Your task to perform on an android device: create a new album in the google photos Image 0: 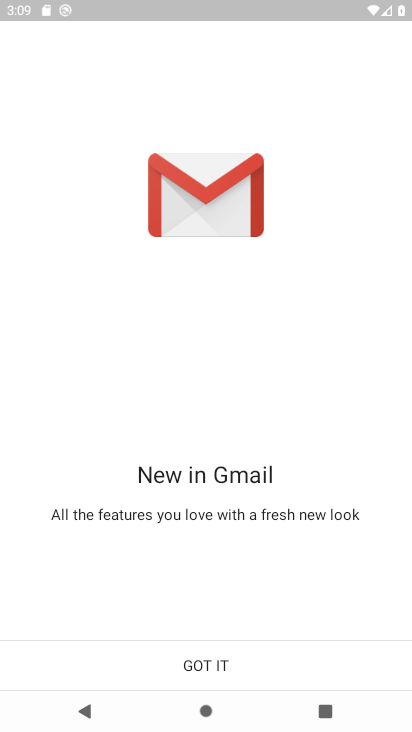
Step 0: press home button
Your task to perform on an android device: create a new album in the google photos Image 1: 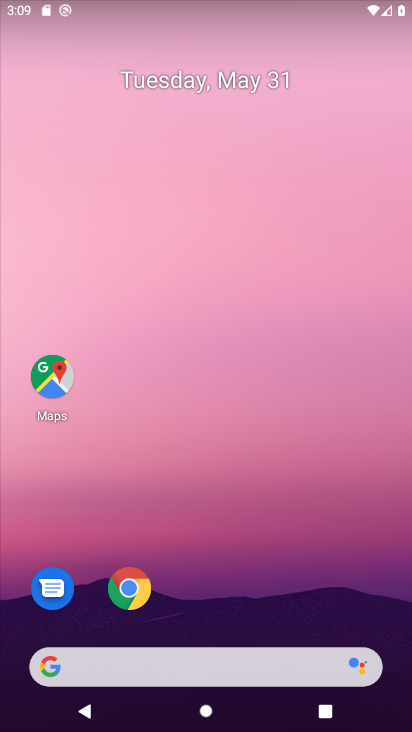
Step 1: drag from (247, 627) to (296, 172)
Your task to perform on an android device: create a new album in the google photos Image 2: 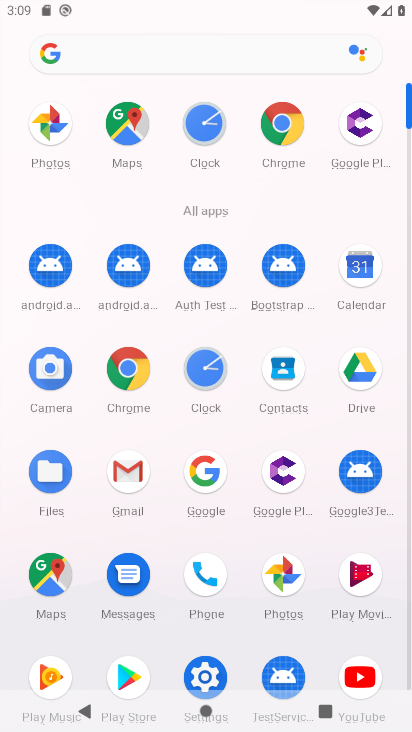
Step 2: click (294, 595)
Your task to perform on an android device: create a new album in the google photos Image 3: 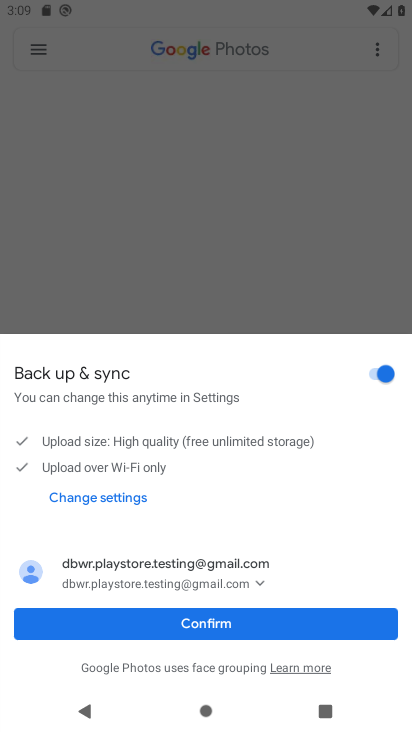
Step 3: click (297, 627)
Your task to perform on an android device: create a new album in the google photos Image 4: 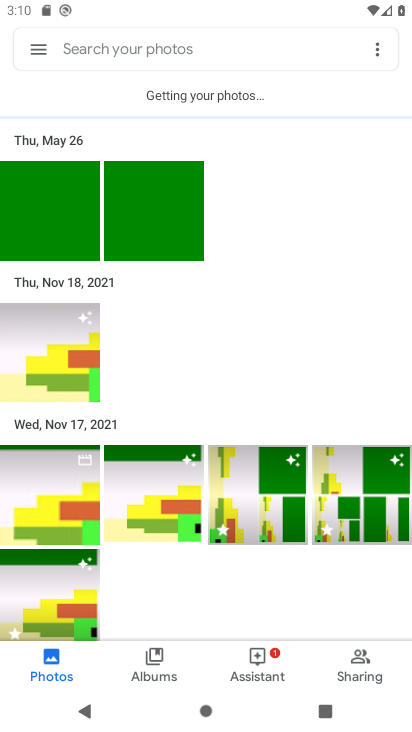
Step 4: click (171, 671)
Your task to perform on an android device: create a new album in the google photos Image 5: 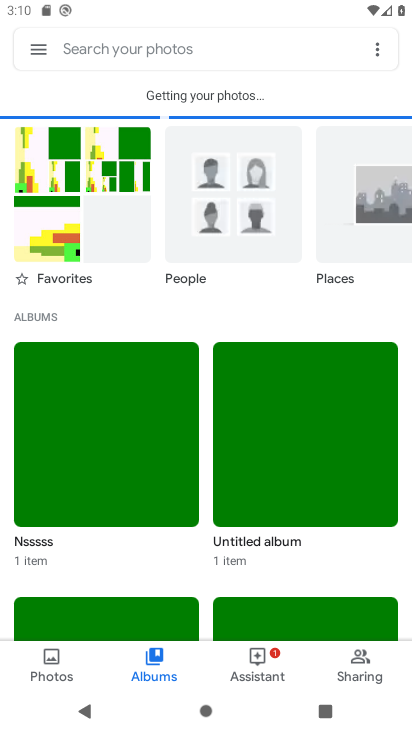
Step 5: task complete